Your task to perform on an android device: Add "usb-a to usb-b" to the cart on costco Image 0: 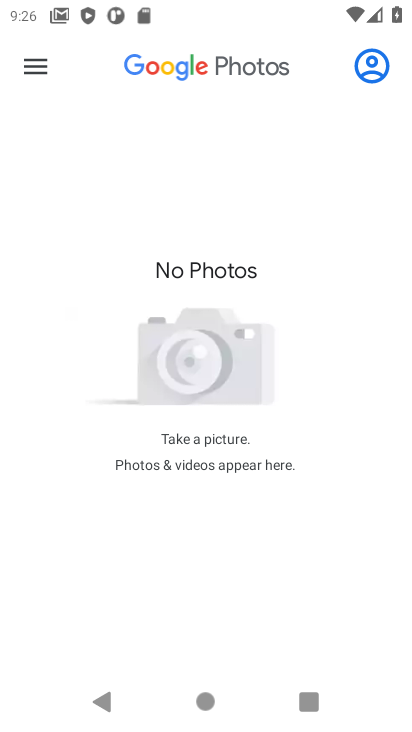
Step 0: press home button
Your task to perform on an android device: Add "usb-a to usb-b" to the cart on costco Image 1: 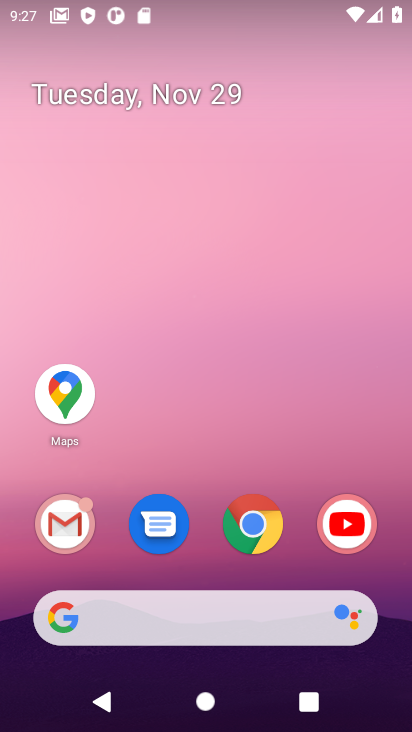
Step 1: click (257, 531)
Your task to perform on an android device: Add "usb-a to usb-b" to the cart on costco Image 2: 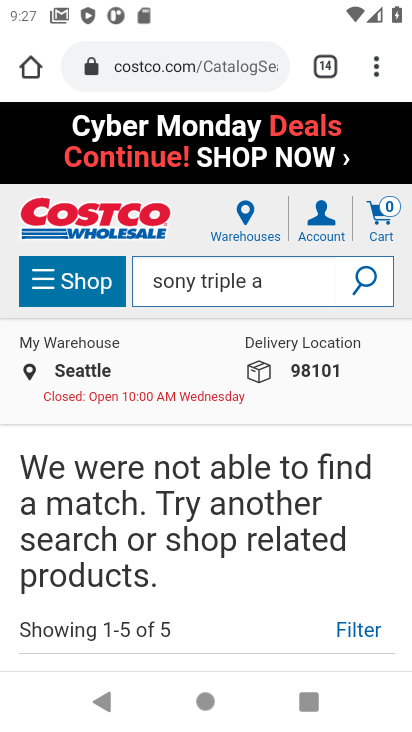
Step 2: click (191, 286)
Your task to perform on an android device: Add "usb-a to usb-b" to the cart on costco Image 3: 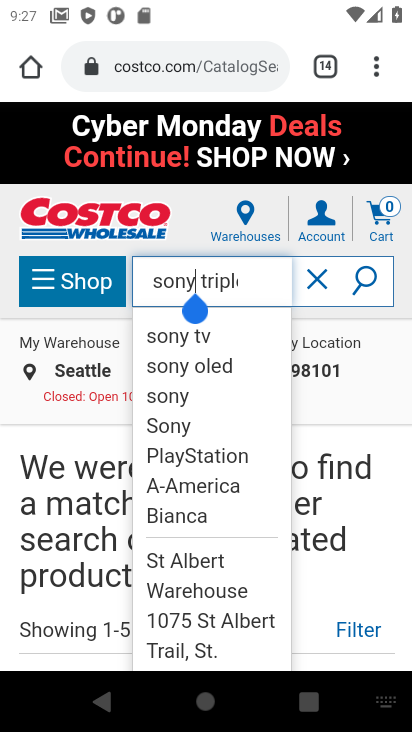
Step 3: click (319, 283)
Your task to perform on an android device: Add "usb-a to usb-b" to the cart on costco Image 4: 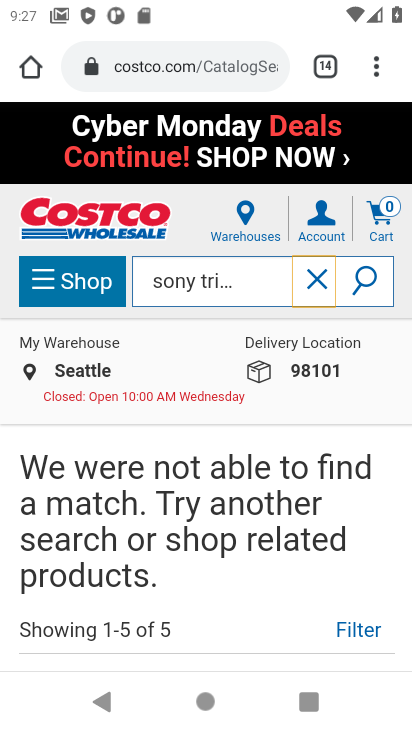
Step 4: click (314, 279)
Your task to perform on an android device: Add "usb-a to usb-b" to the cart on costco Image 5: 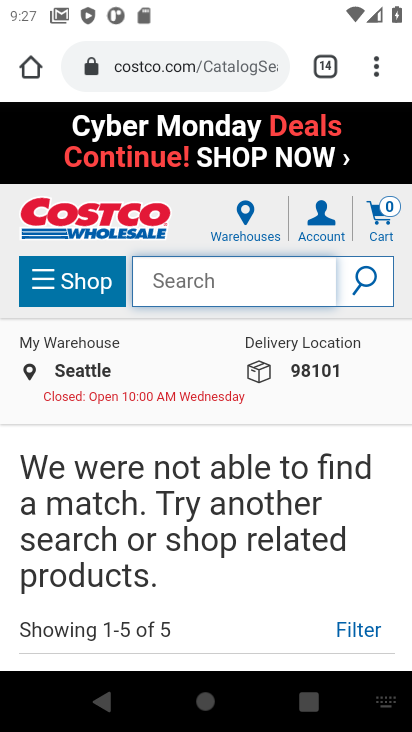
Step 5: type "usb-a to usb-b"
Your task to perform on an android device: Add "usb-a to usb-b" to the cart on costco Image 6: 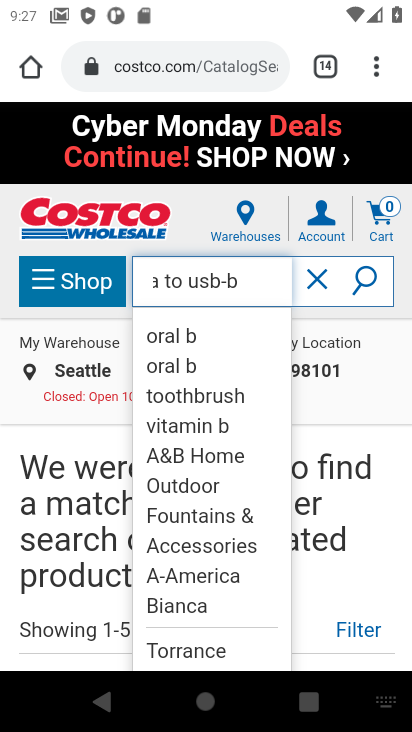
Step 6: click (361, 292)
Your task to perform on an android device: Add "usb-a to usb-b" to the cart on costco Image 7: 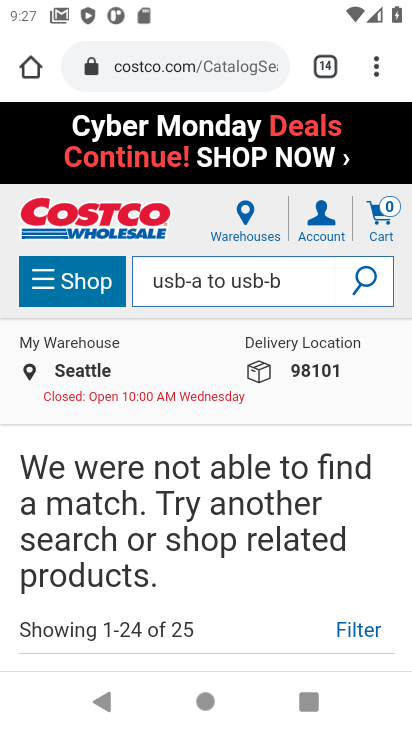
Step 7: task complete